Your task to perform on an android device: snooze an email in the gmail app Image 0: 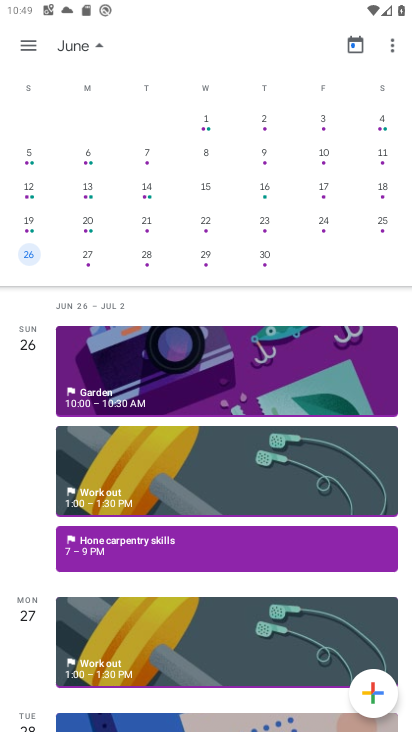
Step 0: press home button
Your task to perform on an android device: snooze an email in the gmail app Image 1: 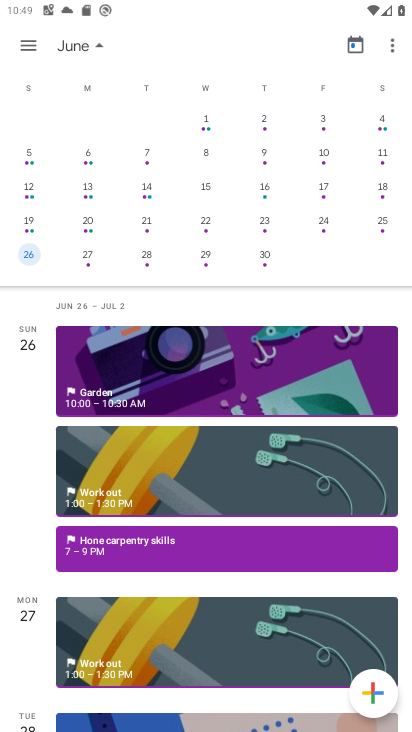
Step 1: press home button
Your task to perform on an android device: snooze an email in the gmail app Image 2: 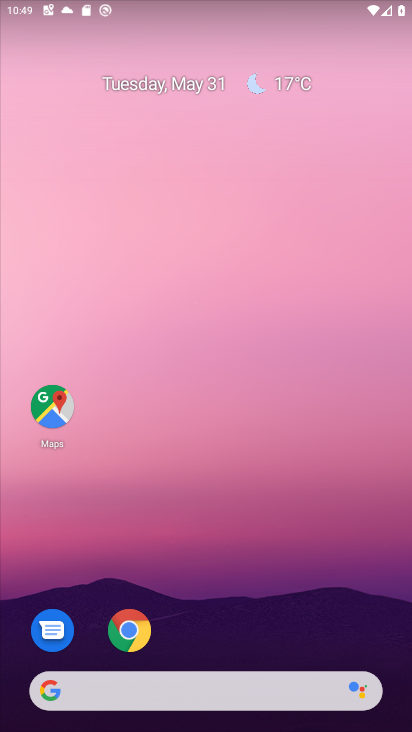
Step 2: drag from (292, 575) to (278, 193)
Your task to perform on an android device: snooze an email in the gmail app Image 3: 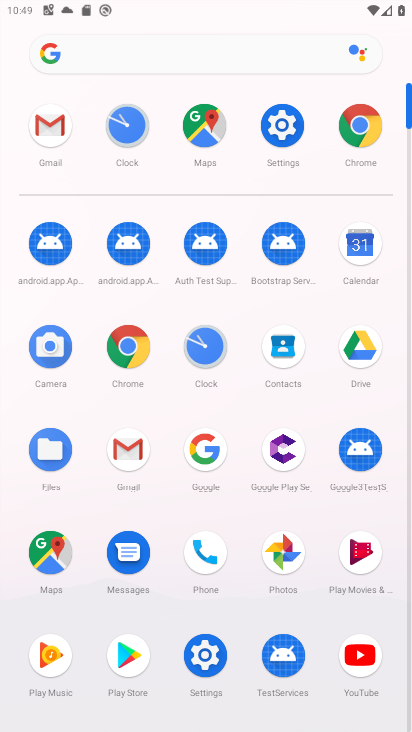
Step 3: click (52, 132)
Your task to perform on an android device: snooze an email in the gmail app Image 4: 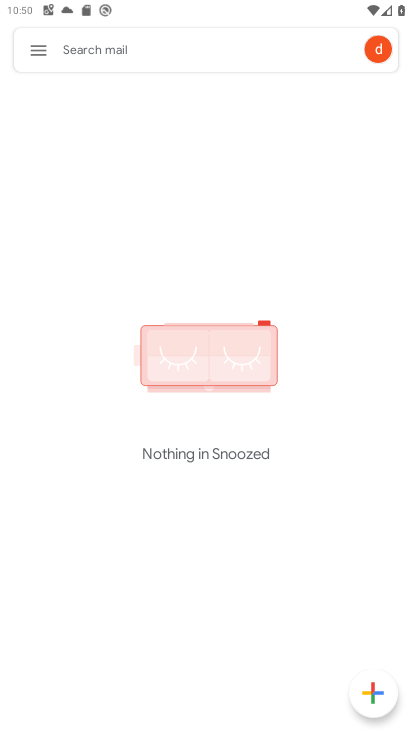
Step 4: click (30, 35)
Your task to perform on an android device: snooze an email in the gmail app Image 5: 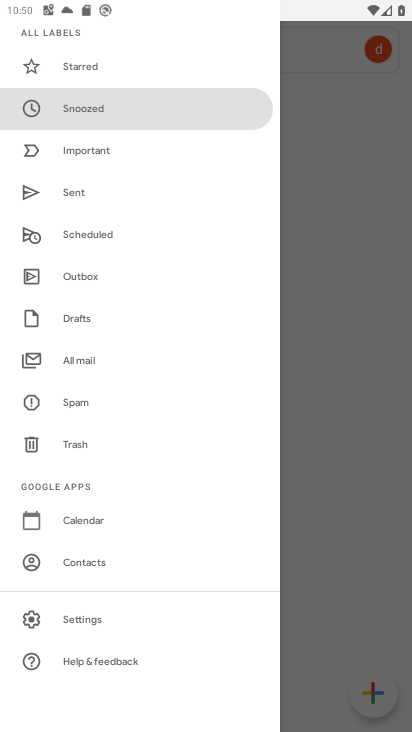
Step 5: click (69, 357)
Your task to perform on an android device: snooze an email in the gmail app Image 6: 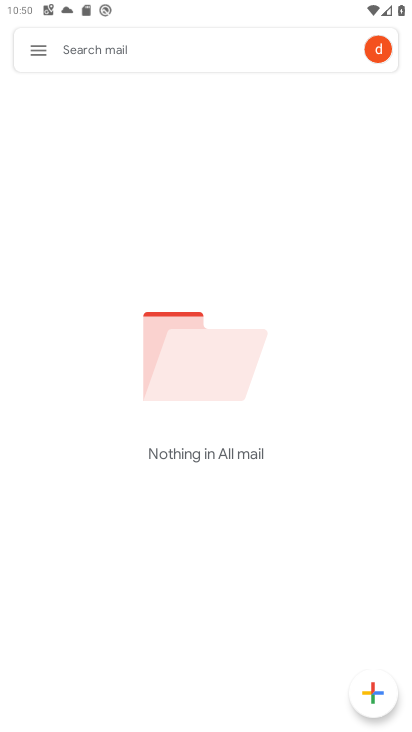
Step 6: task complete